Your task to perform on an android device: What is the recent news? Image 0: 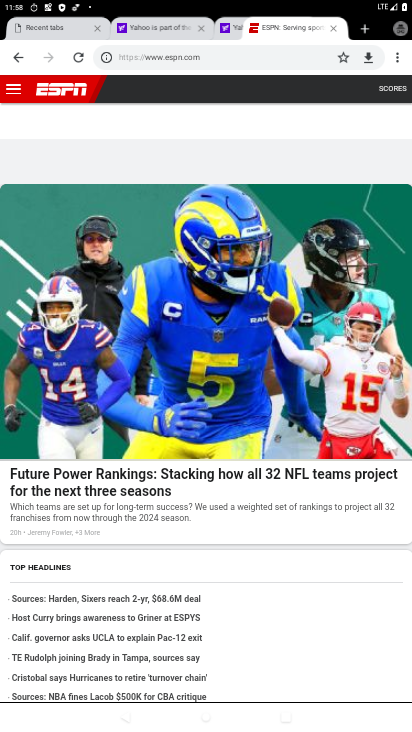
Step 0: press home button
Your task to perform on an android device: What is the recent news? Image 1: 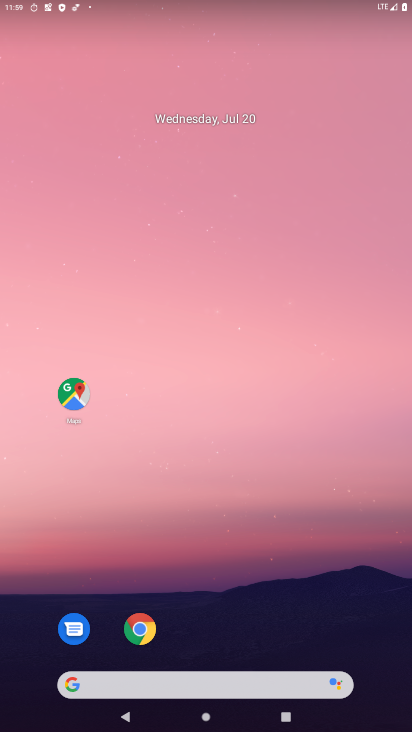
Step 1: drag from (263, 665) to (296, 26)
Your task to perform on an android device: What is the recent news? Image 2: 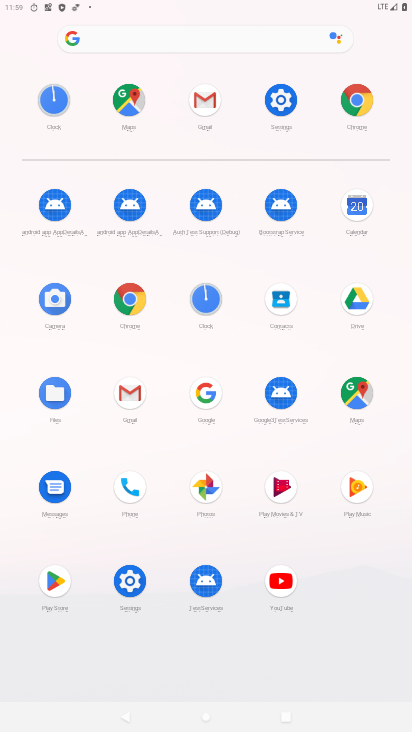
Step 2: click (125, 304)
Your task to perform on an android device: What is the recent news? Image 3: 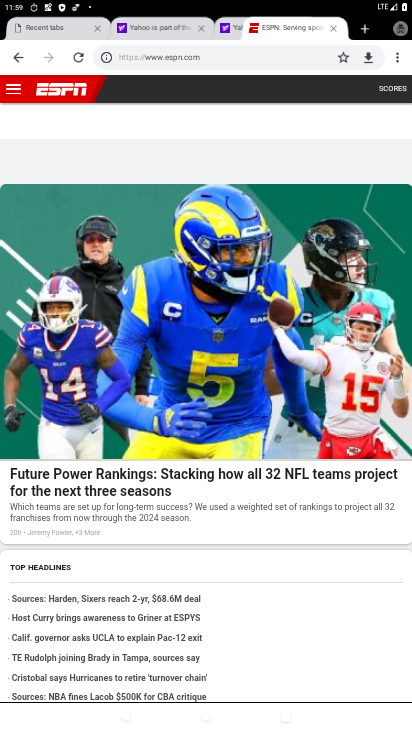
Step 3: click (180, 62)
Your task to perform on an android device: What is the recent news? Image 4: 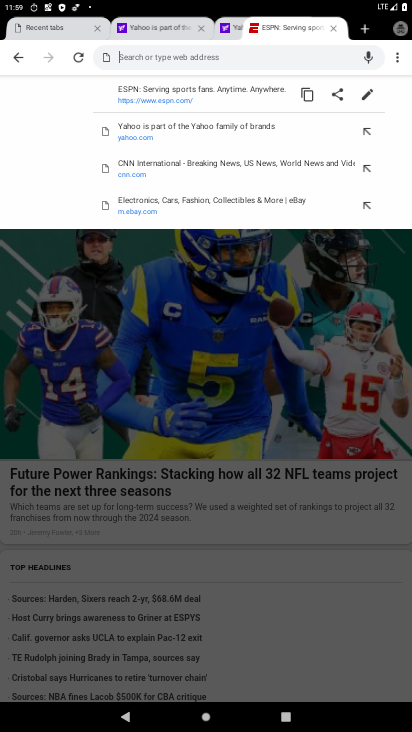
Step 4: type "recent news"
Your task to perform on an android device: What is the recent news? Image 5: 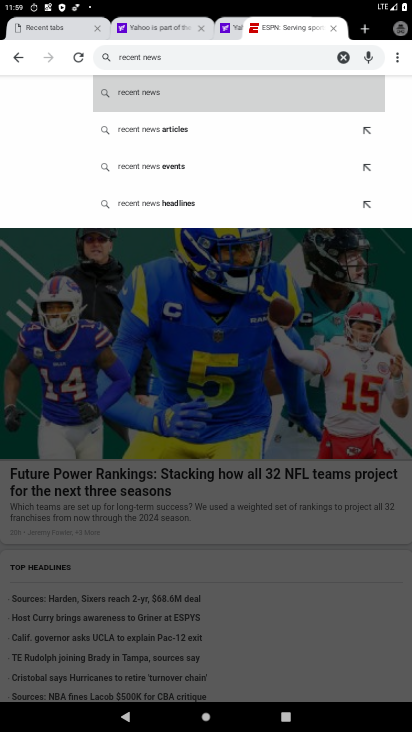
Step 5: click (166, 85)
Your task to perform on an android device: What is the recent news? Image 6: 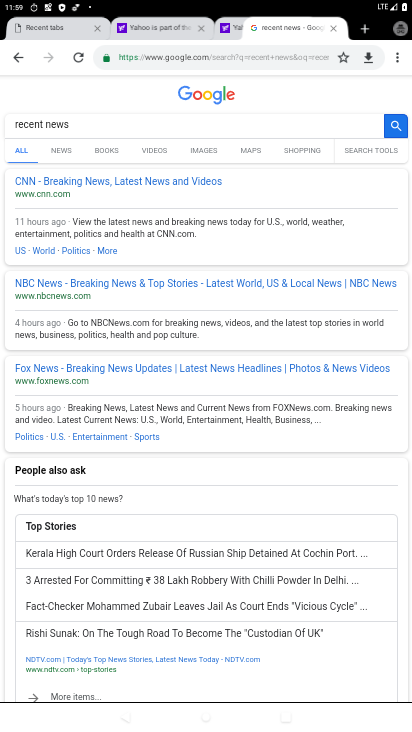
Step 6: task complete